Your task to perform on an android device: Search for good pizza restaurants on Maps Image 0: 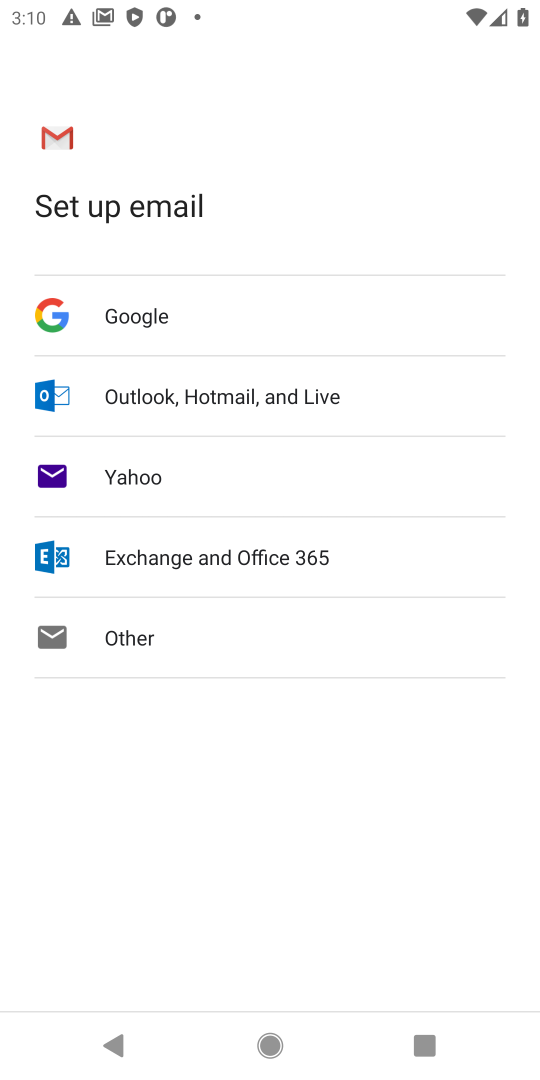
Step 0: press home button
Your task to perform on an android device: Search for good pizza restaurants on Maps Image 1: 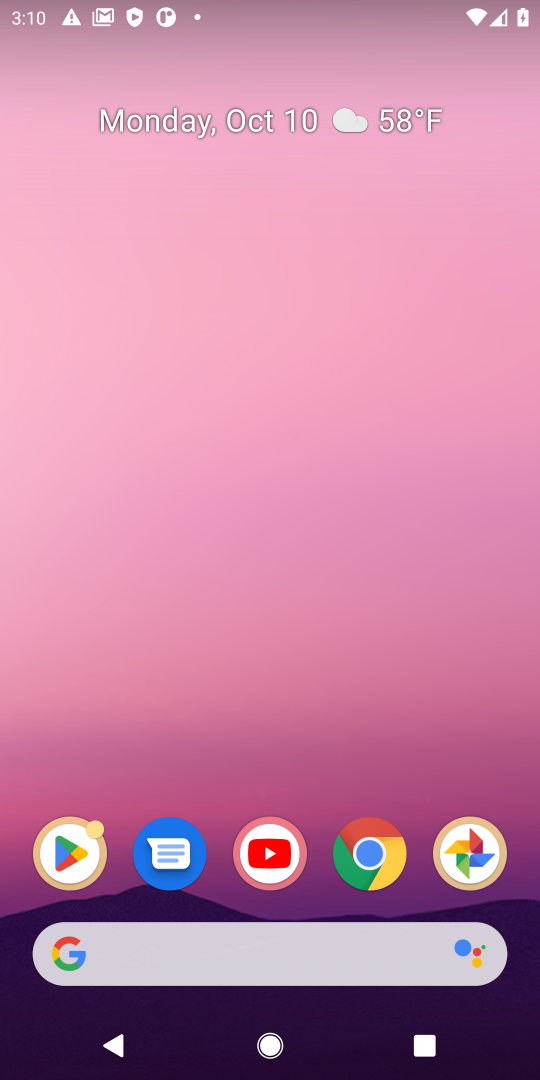
Step 1: drag from (283, 898) to (263, 110)
Your task to perform on an android device: Search for good pizza restaurants on Maps Image 2: 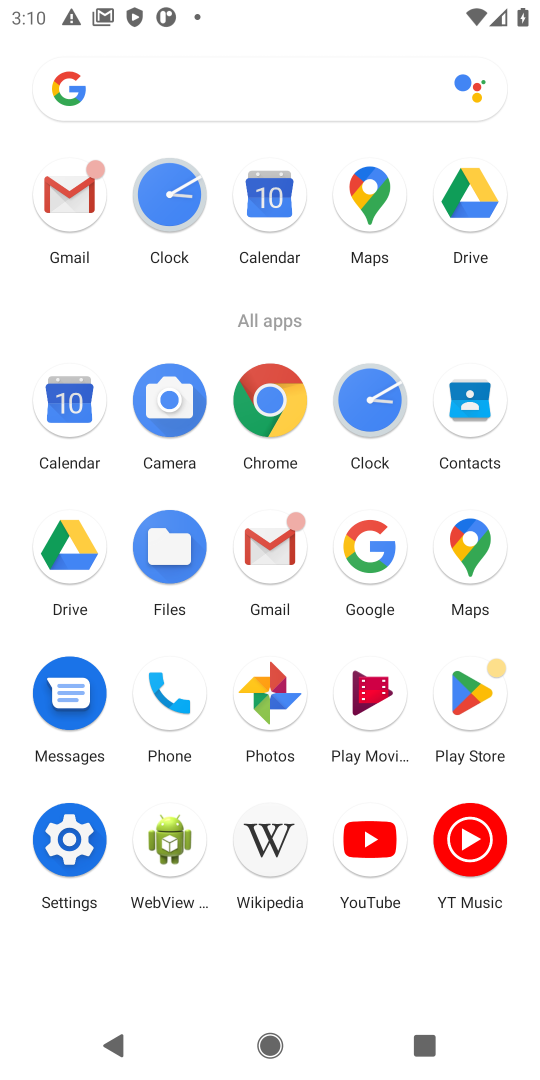
Step 2: click (470, 569)
Your task to perform on an android device: Search for good pizza restaurants on Maps Image 3: 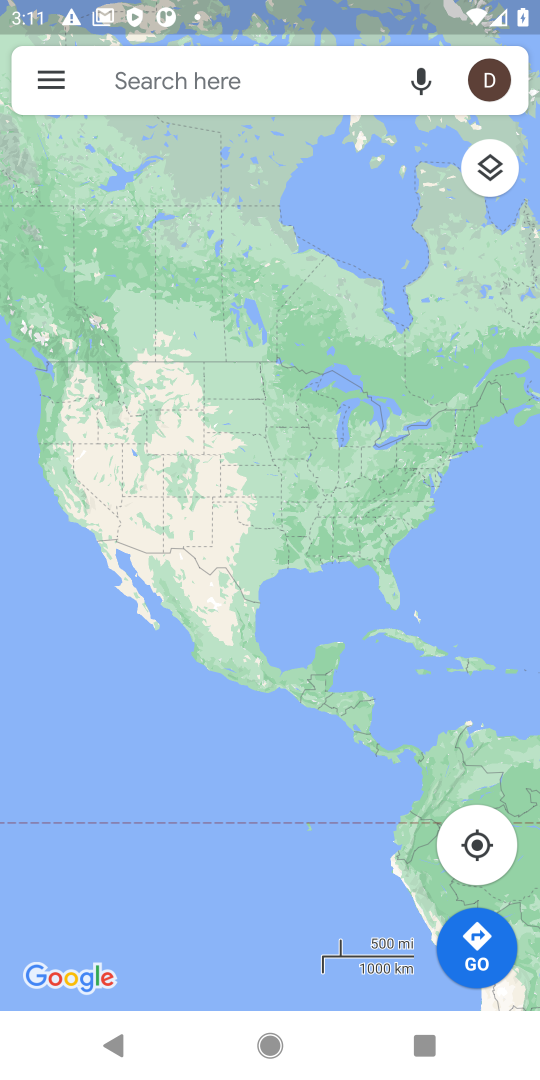
Step 3: click (243, 94)
Your task to perform on an android device: Search for good pizza restaurants on Maps Image 4: 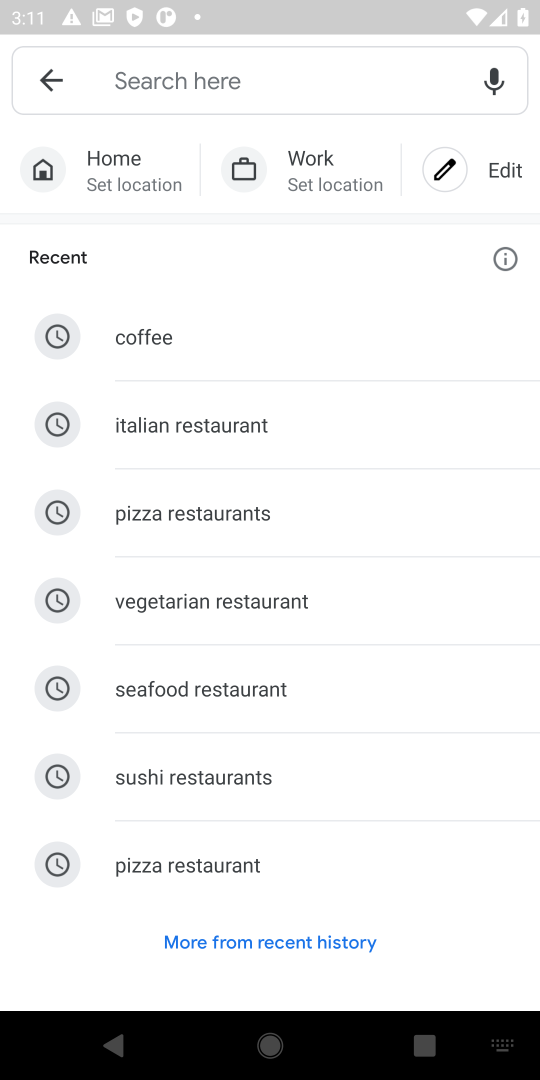
Step 4: type "pizza restaurants"
Your task to perform on an android device: Search for good pizza restaurants on Maps Image 5: 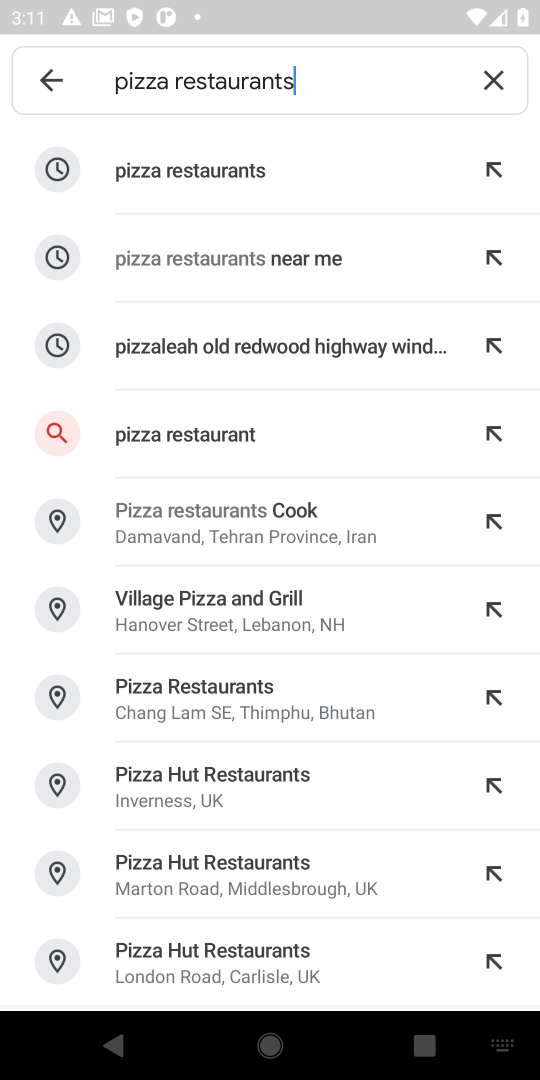
Step 5: click (217, 162)
Your task to perform on an android device: Search for good pizza restaurants on Maps Image 6: 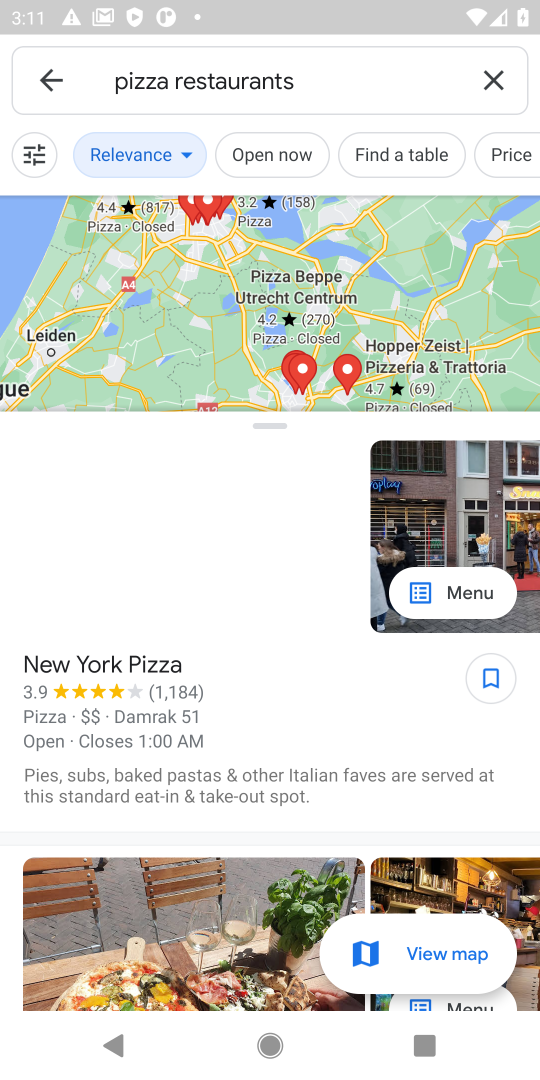
Step 6: task complete